Your task to perform on an android device: Go to ESPN.com Image 0: 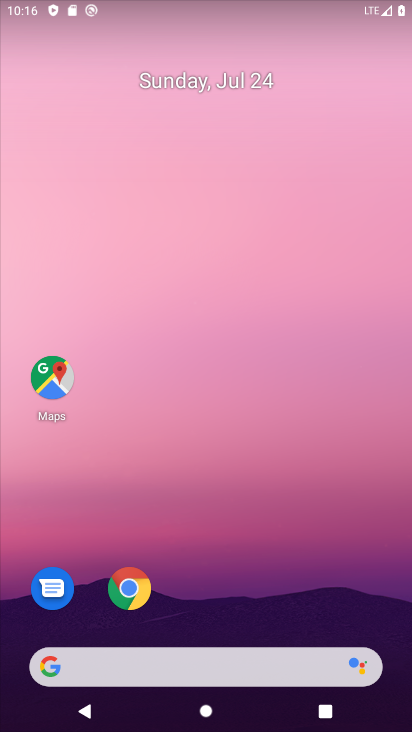
Step 0: click (97, 675)
Your task to perform on an android device: Go to ESPN.com Image 1: 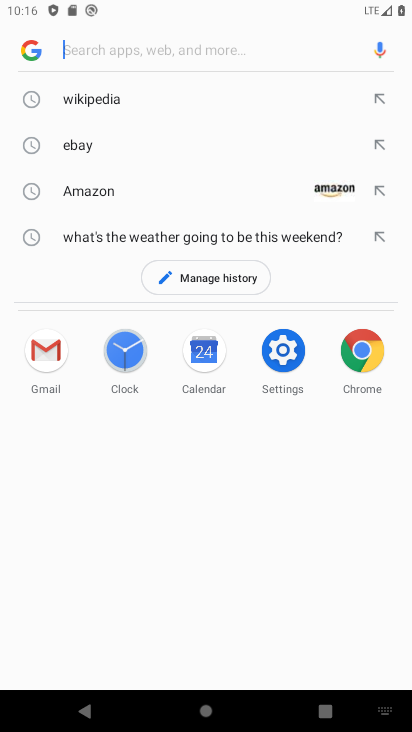
Step 1: type "espn.com"
Your task to perform on an android device: Go to ESPN.com Image 2: 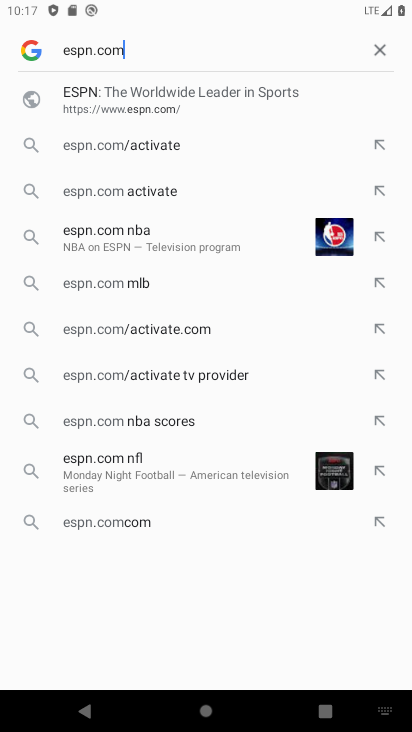
Step 2: click (164, 92)
Your task to perform on an android device: Go to ESPN.com Image 3: 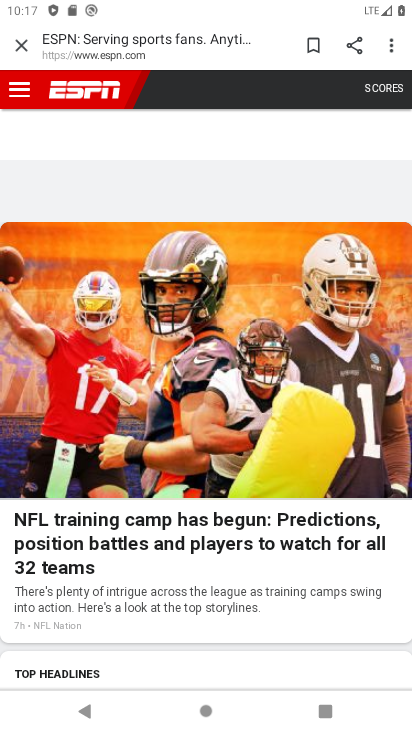
Step 3: task complete